Your task to perform on an android device: Search for seafood restaurants on Google Maps Image 0: 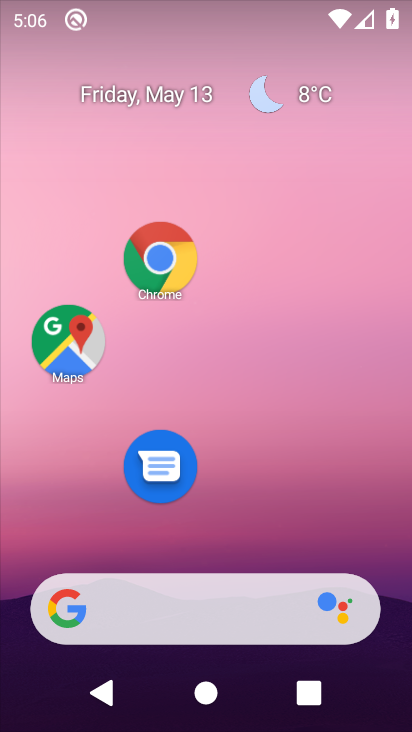
Step 0: drag from (311, 521) to (187, 86)
Your task to perform on an android device: Search for seafood restaurants on Google Maps Image 1: 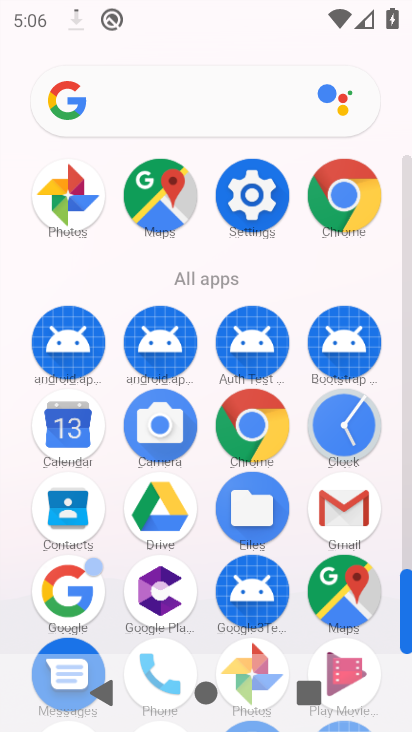
Step 1: drag from (263, 405) to (241, 12)
Your task to perform on an android device: Search for seafood restaurants on Google Maps Image 2: 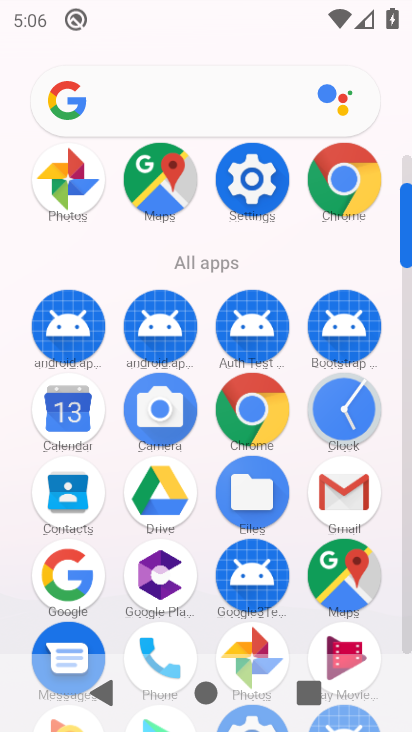
Step 2: click (342, 573)
Your task to perform on an android device: Search for seafood restaurants on Google Maps Image 3: 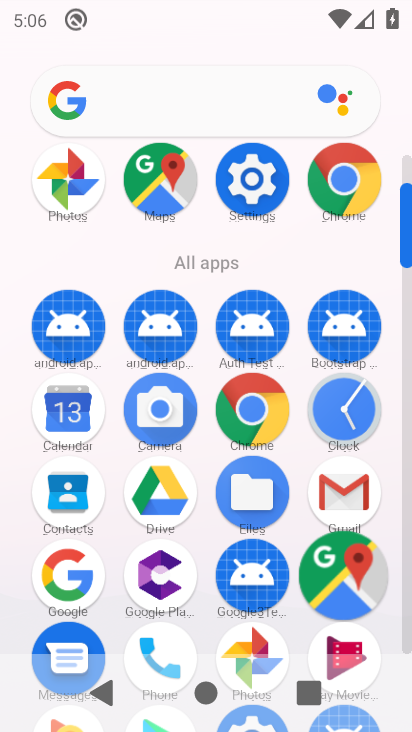
Step 3: click (342, 573)
Your task to perform on an android device: Search for seafood restaurants on Google Maps Image 4: 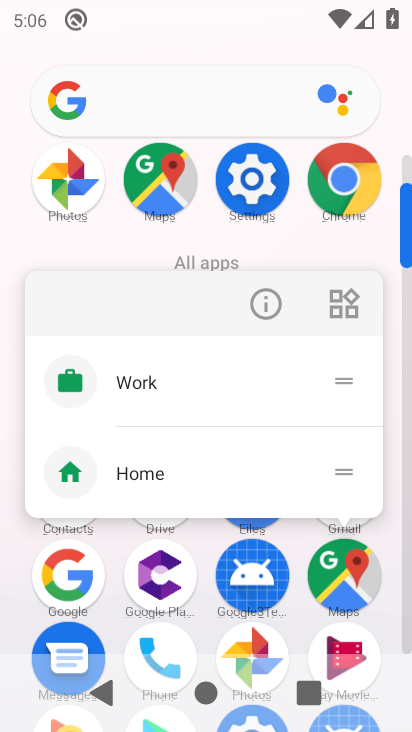
Step 4: click (342, 573)
Your task to perform on an android device: Search for seafood restaurants on Google Maps Image 5: 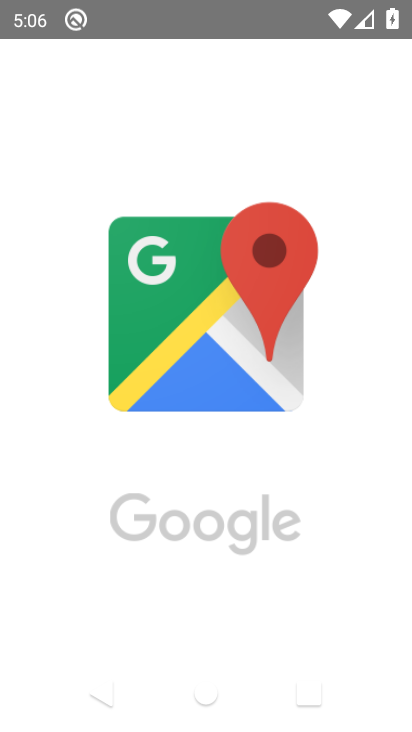
Step 5: click (333, 571)
Your task to perform on an android device: Search for seafood restaurants on Google Maps Image 6: 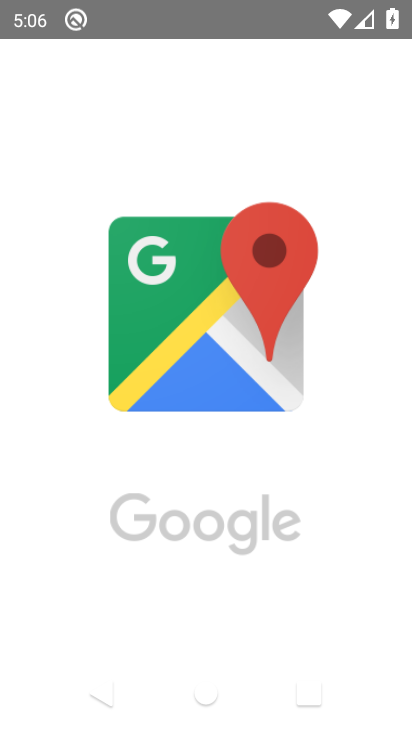
Step 6: click (334, 569)
Your task to perform on an android device: Search for seafood restaurants on Google Maps Image 7: 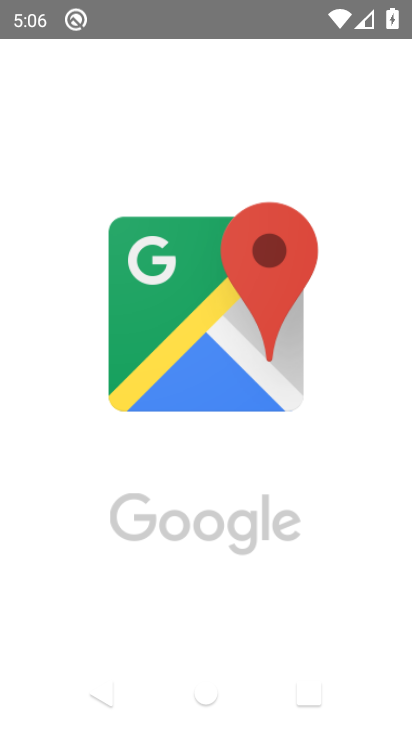
Step 7: click (312, 376)
Your task to perform on an android device: Search for seafood restaurants on Google Maps Image 8: 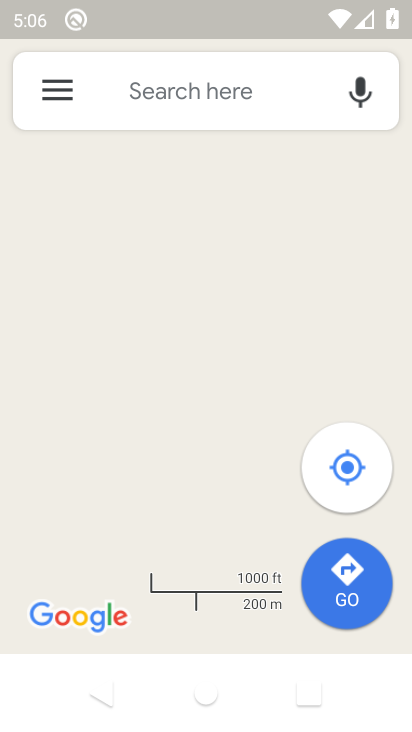
Step 8: click (140, 90)
Your task to perform on an android device: Search for seafood restaurants on Google Maps Image 9: 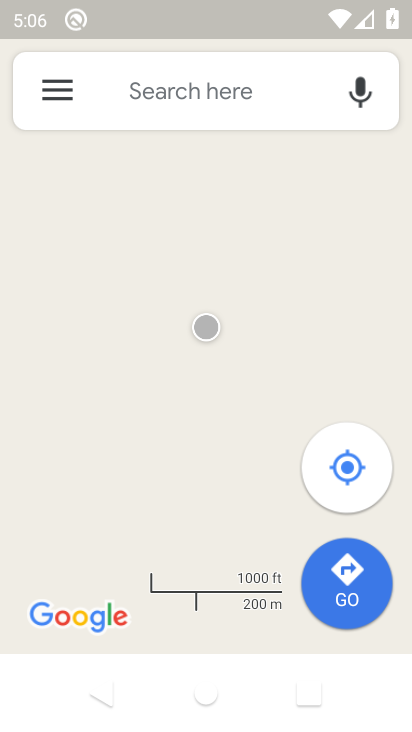
Step 9: click (140, 90)
Your task to perform on an android device: Search for seafood restaurants on Google Maps Image 10: 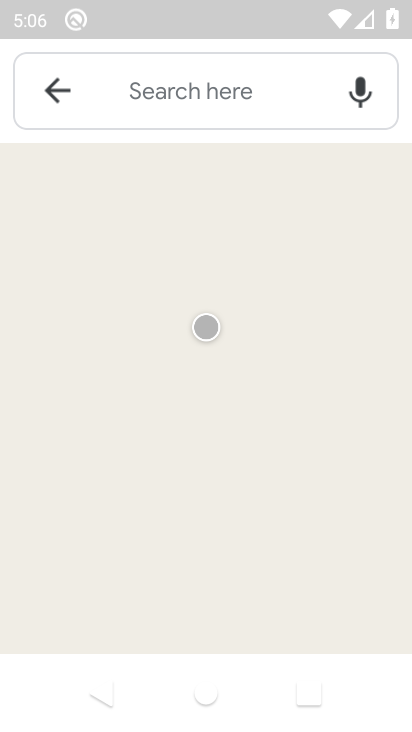
Step 10: click (147, 88)
Your task to perform on an android device: Search for seafood restaurants on Google Maps Image 11: 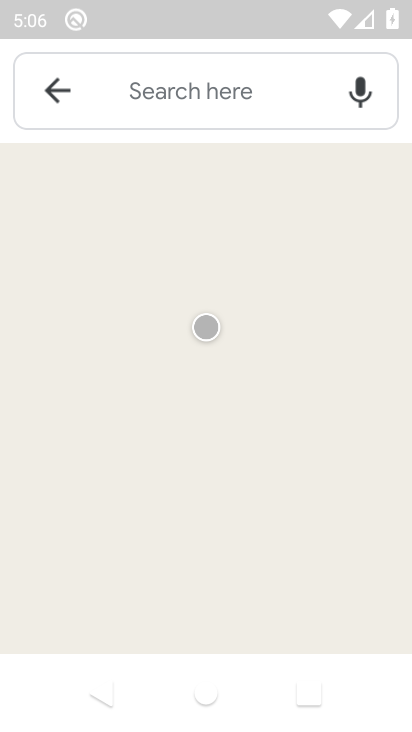
Step 11: click (147, 88)
Your task to perform on an android device: Search for seafood restaurants on Google Maps Image 12: 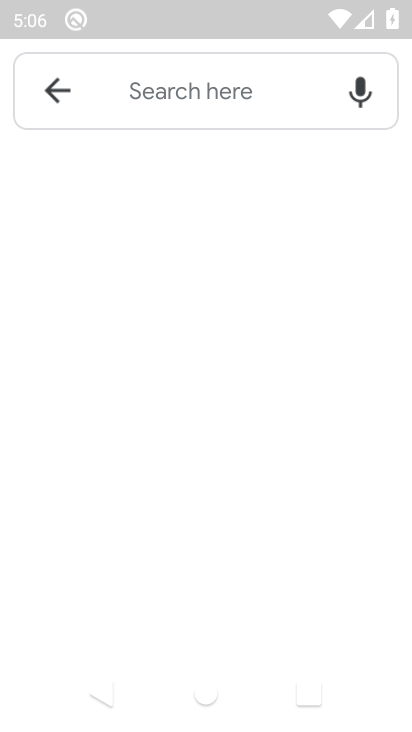
Step 12: click (147, 88)
Your task to perform on an android device: Search for seafood restaurants on Google Maps Image 13: 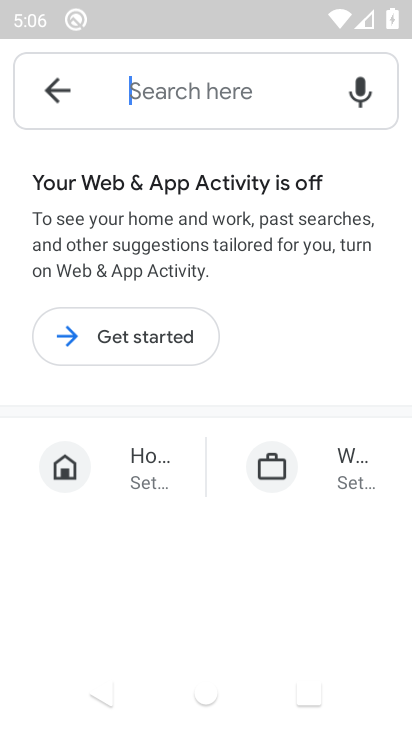
Step 13: click (147, 88)
Your task to perform on an android device: Search for seafood restaurants on Google Maps Image 14: 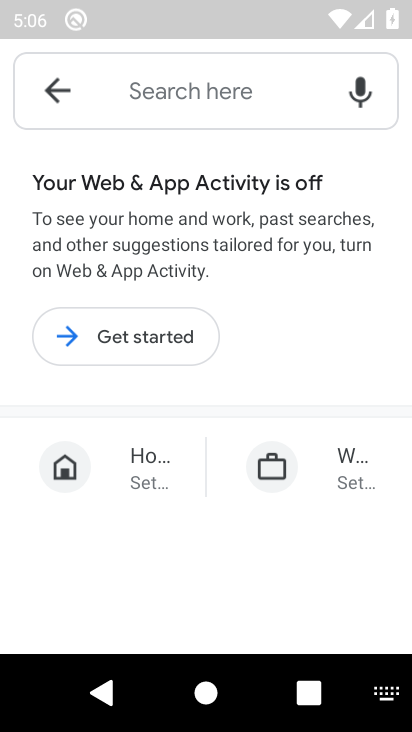
Step 14: click (147, 88)
Your task to perform on an android device: Search for seafood restaurants on Google Maps Image 15: 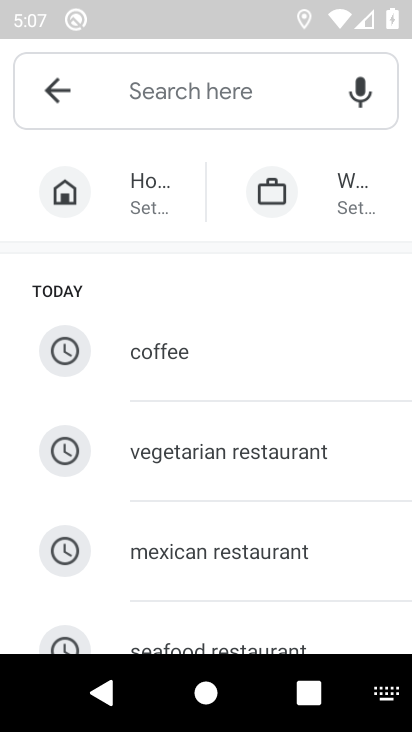
Step 15: type "seafood restaurants"
Your task to perform on an android device: Search for seafood restaurants on Google Maps Image 16: 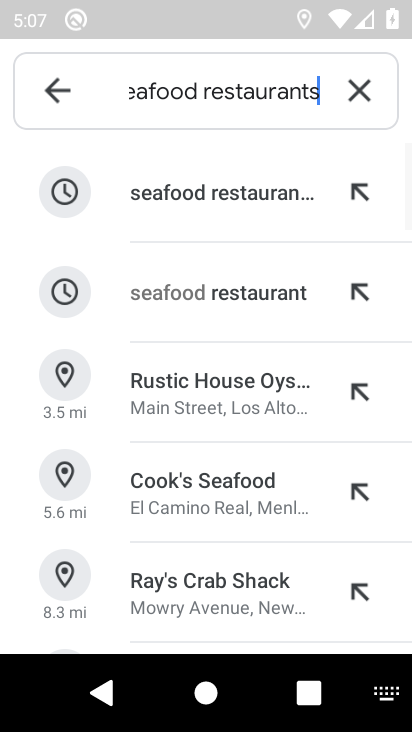
Step 16: click (244, 190)
Your task to perform on an android device: Search for seafood restaurants on Google Maps Image 17: 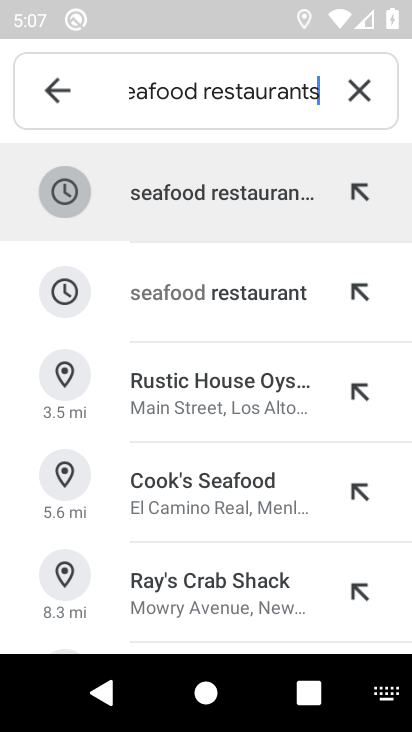
Step 17: click (244, 190)
Your task to perform on an android device: Search for seafood restaurants on Google Maps Image 18: 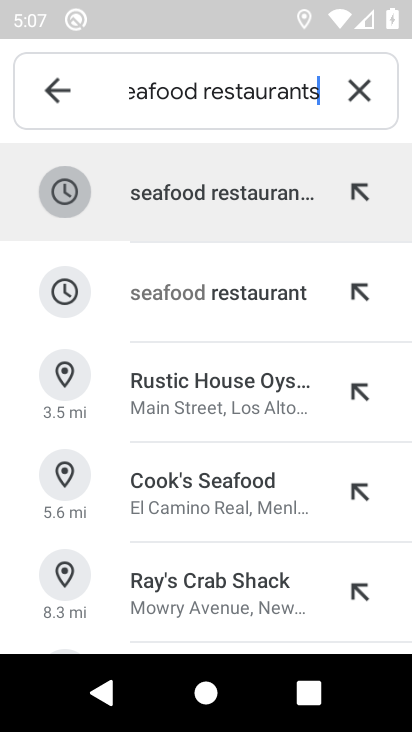
Step 18: click (244, 190)
Your task to perform on an android device: Search for seafood restaurants on Google Maps Image 19: 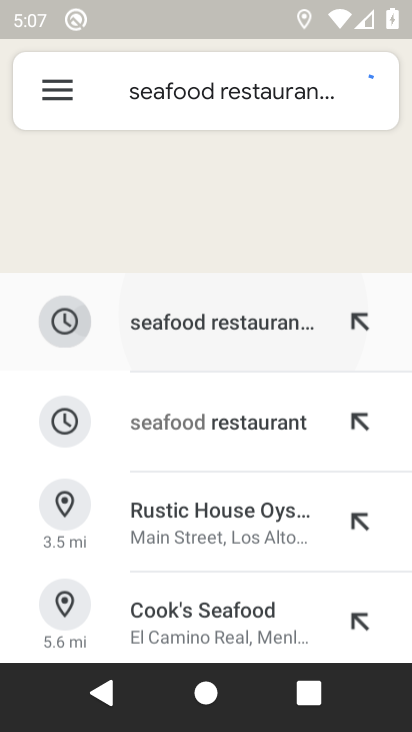
Step 19: click (244, 190)
Your task to perform on an android device: Search for seafood restaurants on Google Maps Image 20: 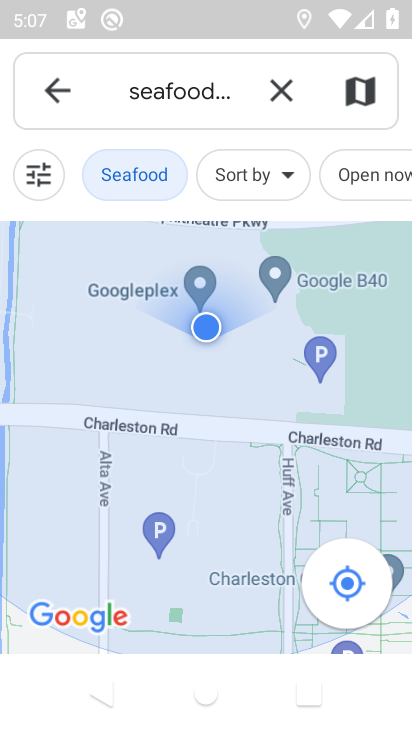
Step 20: task complete